Your task to perform on an android device: install app "Calculator" Image 0: 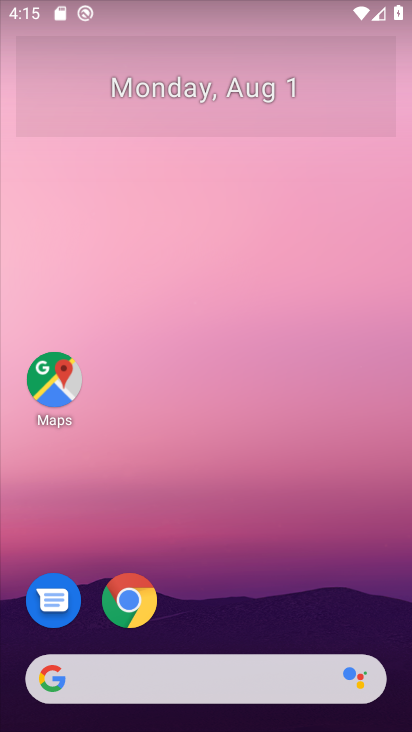
Step 0: drag from (336, 585) to (233, 125)
Your task to perform on an android device: install app "Calculator" Image 1: 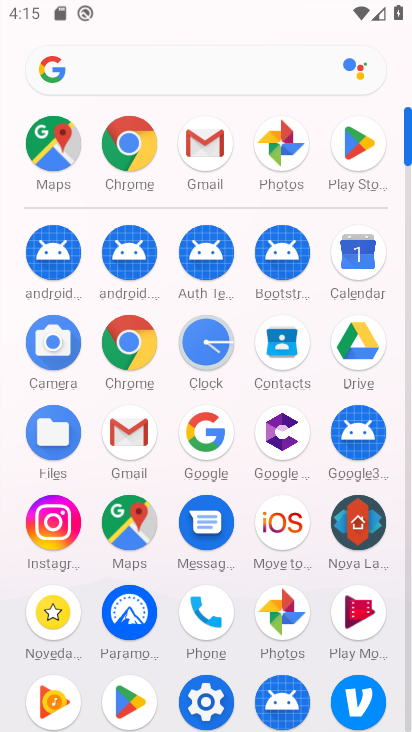
Step 1: click (363, 160)
Your task to perform on an android device: install app "Calculator" Image 2: 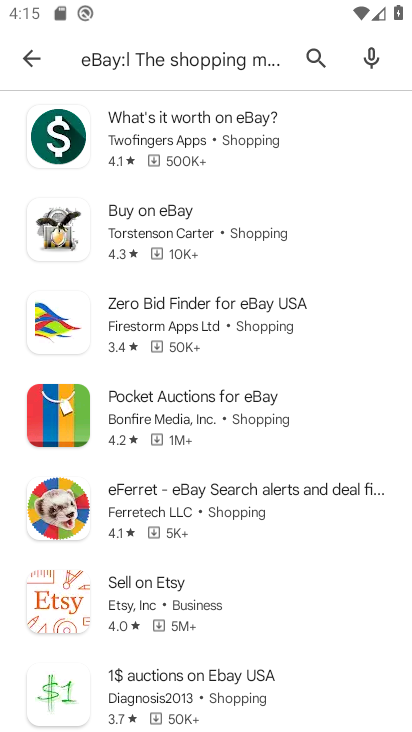
Step 2: click (202, 37)
Your task to perform on an android device: install app "Calculator" Image 3: 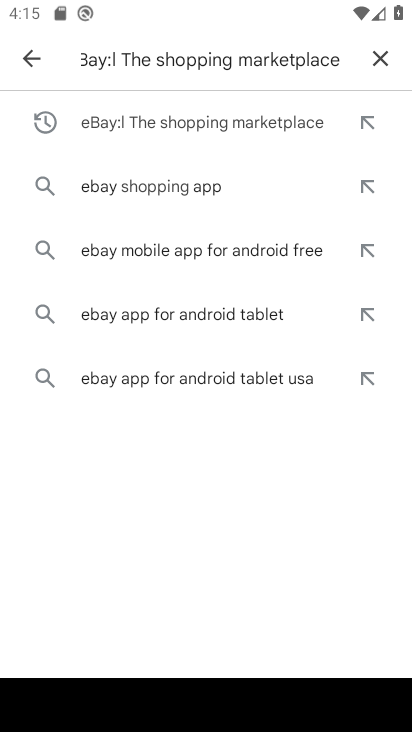
Step 3: click (383, 54)
Your task to perform on an android device: install app "Calculator" Image 4: 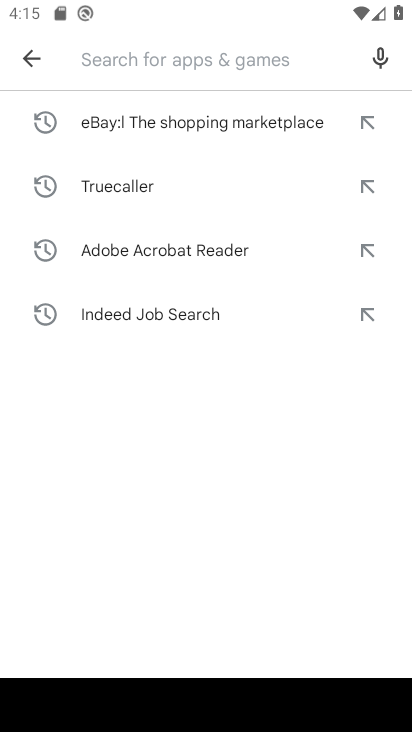
Step 4: type "Calculator"
Your task to perform on an android device: install app "Calculator" Image 5: 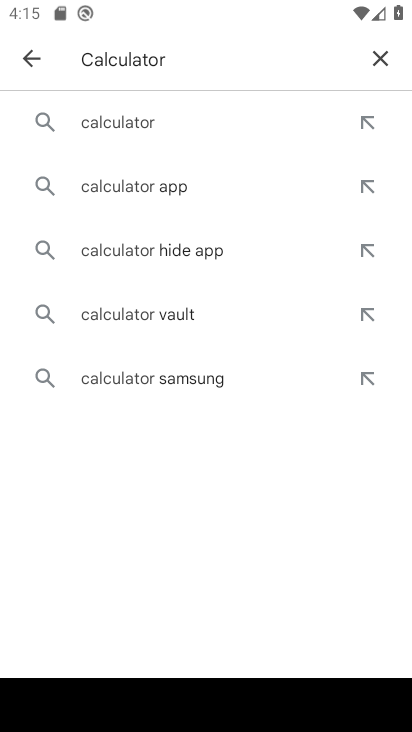
Step 5: press enter
Your task to perform on an android device: install app "Calculator" Image 6: 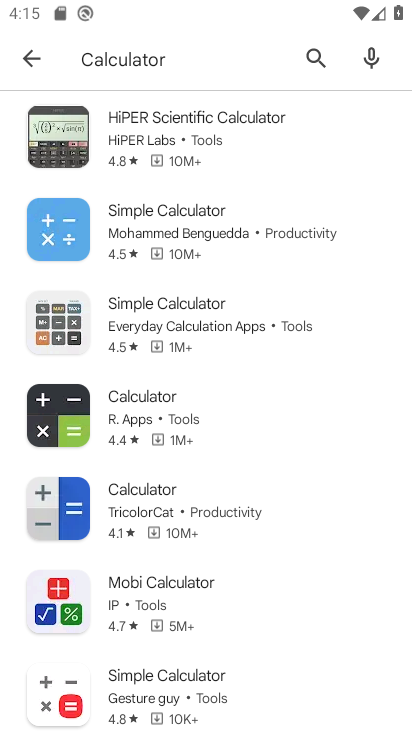
Step 6: task complete